Your task to perform on an android device: turn on airplane mode Image 0: 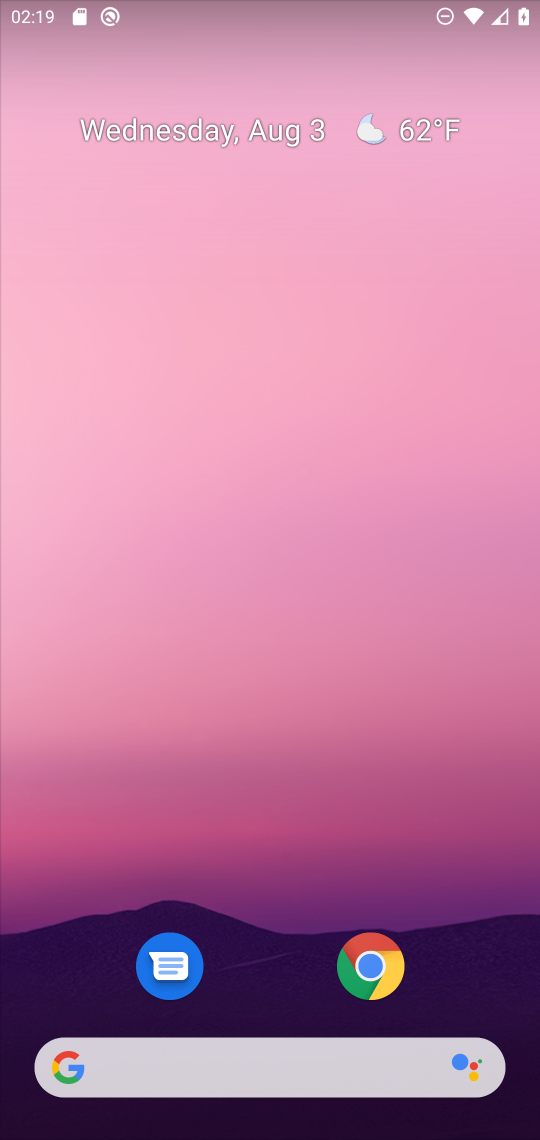
Step 0: drag from (261, 873) to (261, 260)
Your task to perform on an android device: turn on airplane mode Image 1: 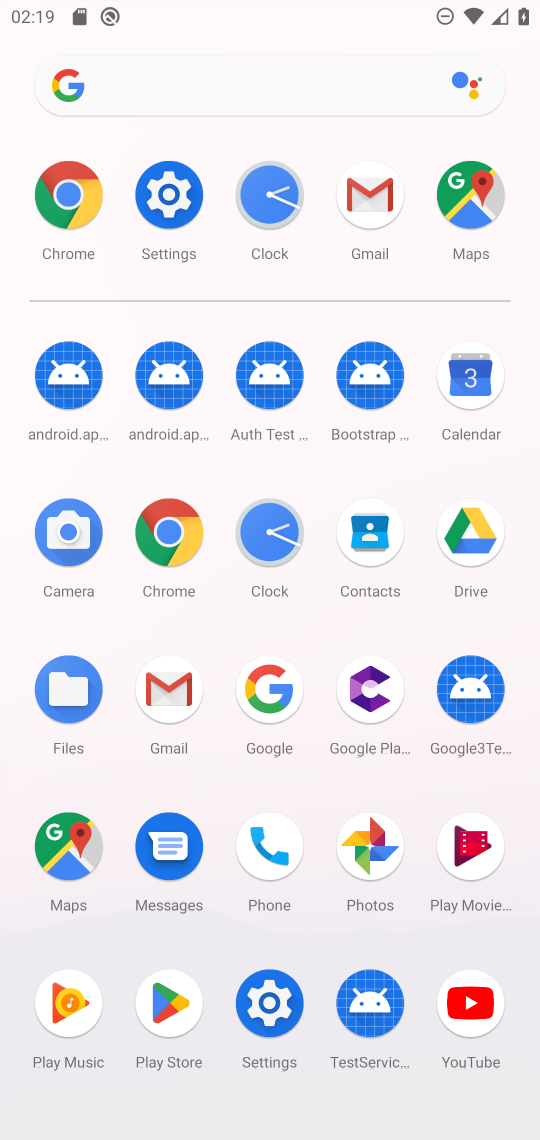
Step 1: click (181, 190)
Your task to perform on an android device: turn on airplane mode Image 2: 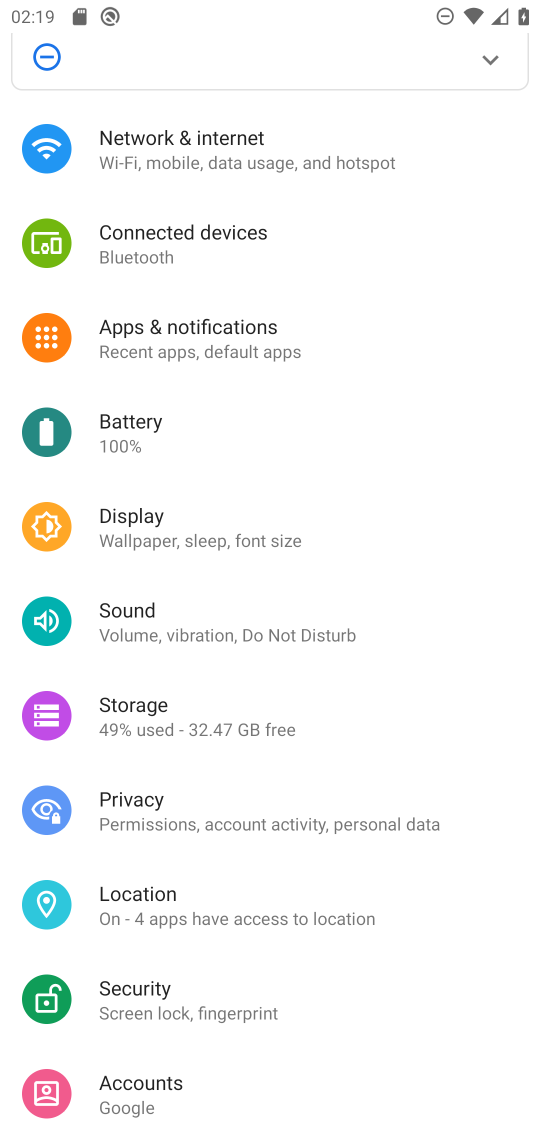
Step 2: click (259, 176)
Your task to perform on an android device: turn on airplane mode Image 3: 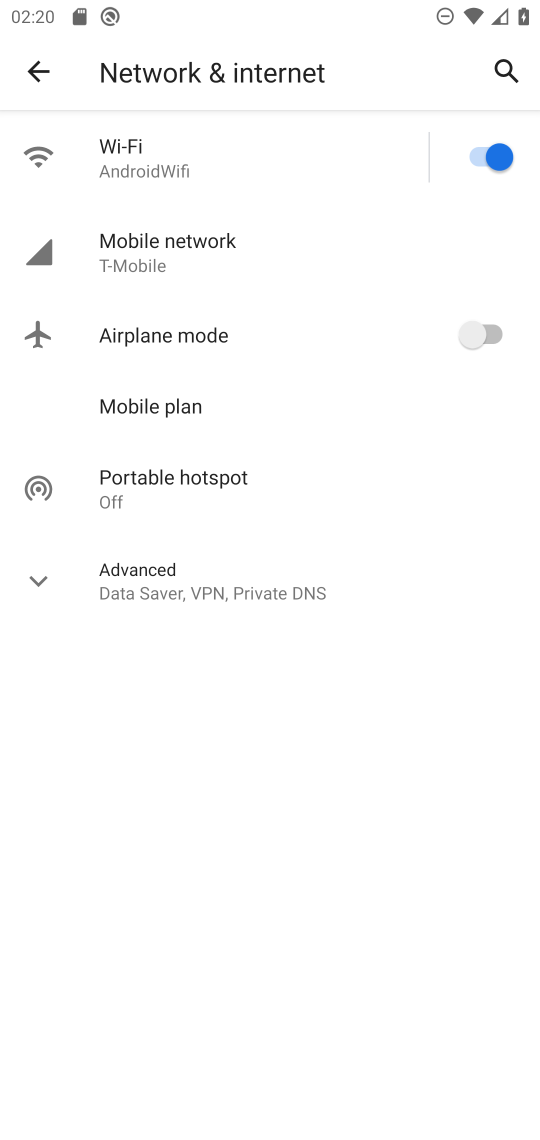
Step 3: click (507, 334)
Your task to perform on an android device: turn on airplane mode Image 4: 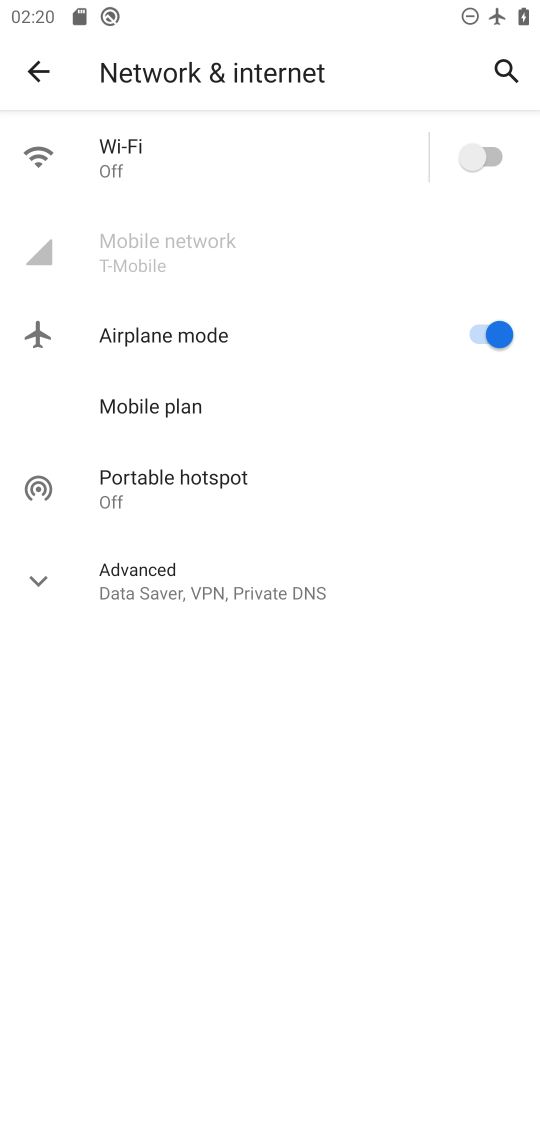
Step 4: task complete